Your task to perform on an android device: Open battery settings Image 0: 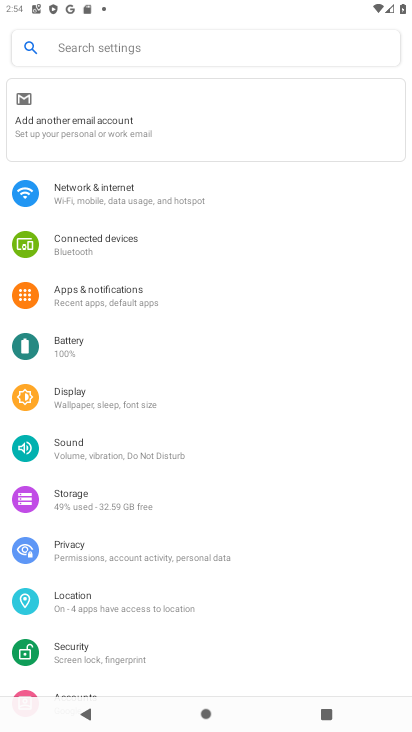
Step 0: press home button
Your task to perform on an android device: Open battery settings Image 1: 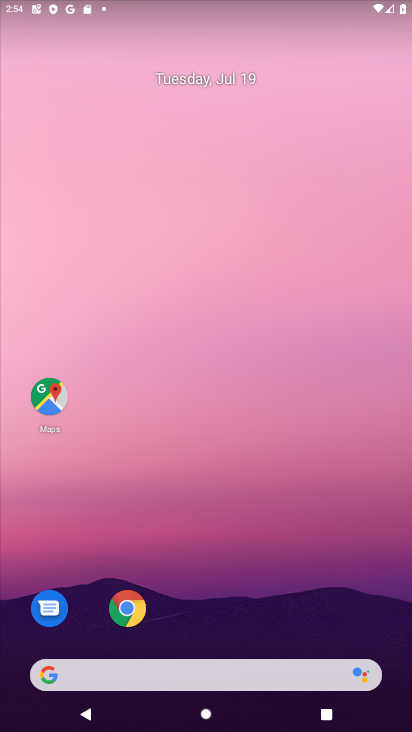
Step 1: drag from (249, 589) to (186, 257)
Your task to perform on an android device: Open battery settings Image 2: 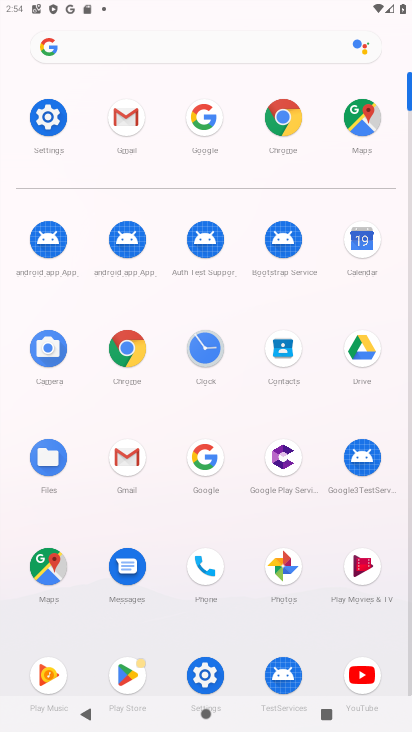
Step 2: click (58, 113)
Your task to perform on an android device: Open battery settings Image 3: 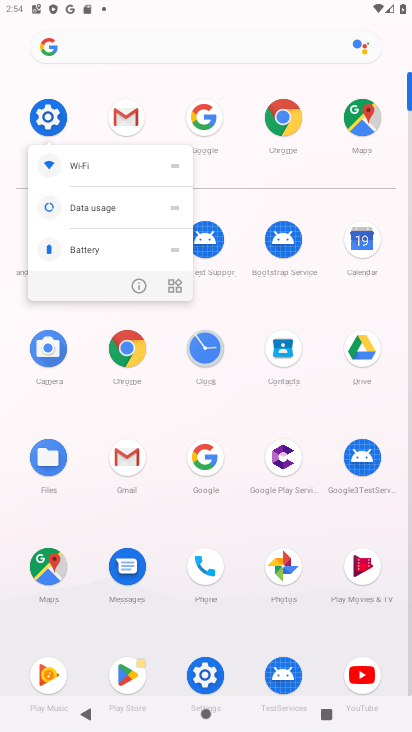
Step 3: click (50, 114)
Your task to perform on an android device: Open battery settings Image 4: 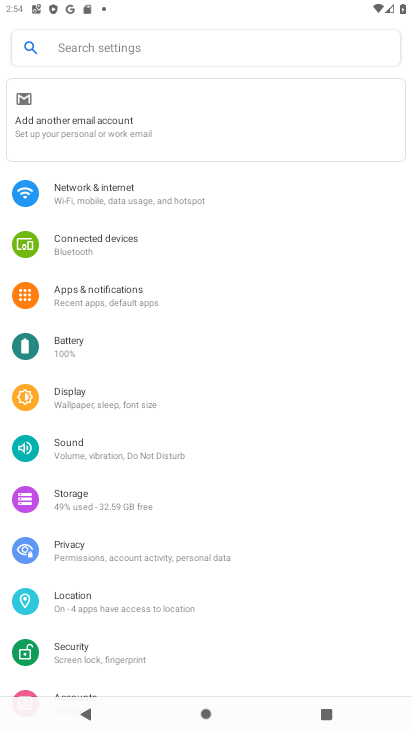
Step 4: click (82, 340)
Your task to perform on an android device: Open battery settings Image 5: 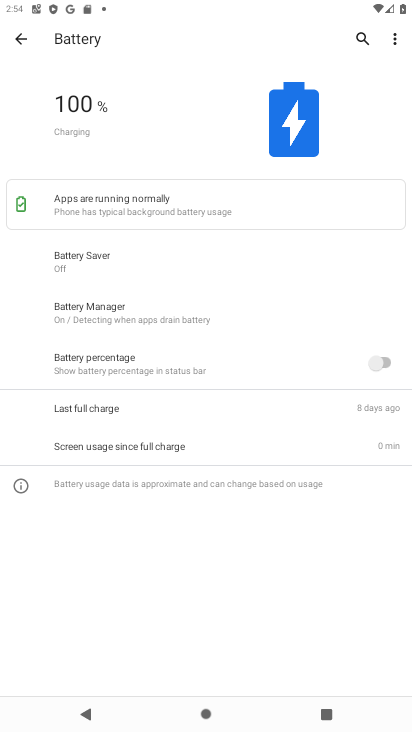
Step 5: task complete